Your task to perform on an android device: turn on location history Image 0: 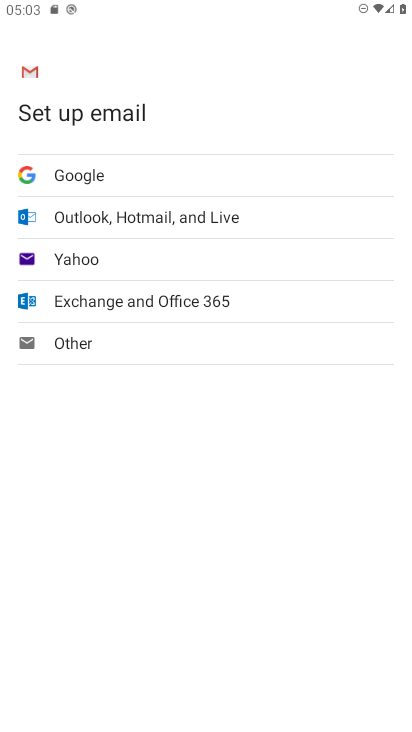
Step 0: press home button
Your task to perform on an android device: turn on location history Image 1: 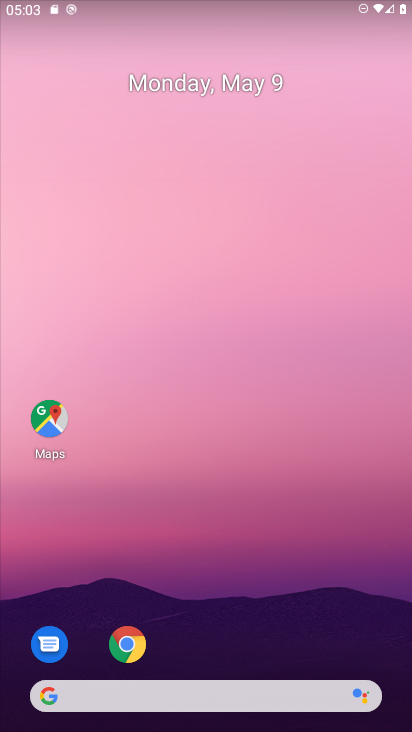
Step 1: drag from (226, 600) to (239, 42)
Your task to perform on an android device: turn on location history Image 2: 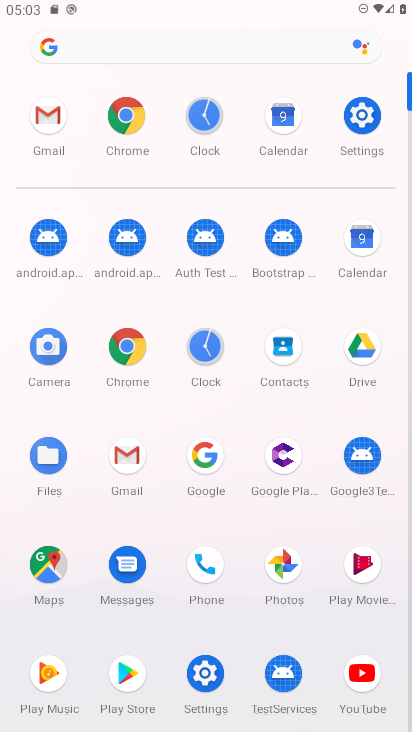
Step 2: click (207, 674)
Your task to perform on an android device: turn on location history Image 3: 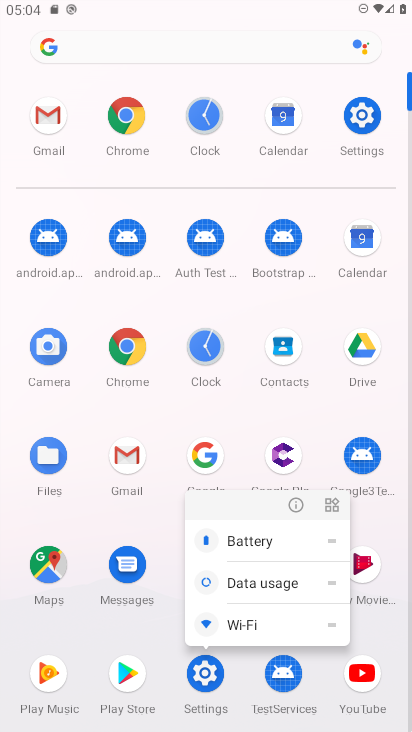
Step 3: click (207, 674)
Your task to perform on an android device: turn on location history Image 4: 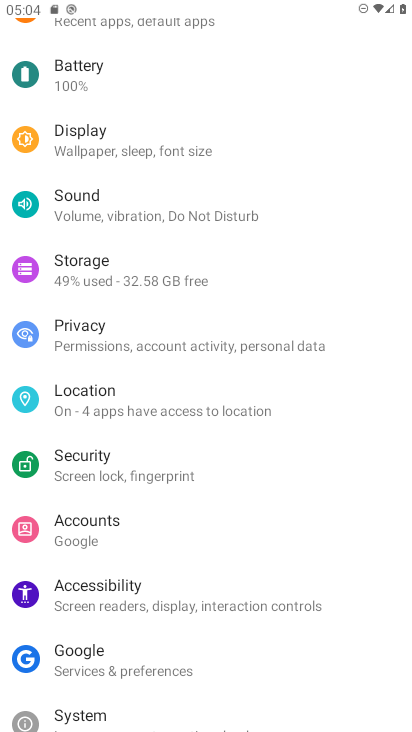
Step 4: click (114, 392)
Your task to perform on an android device: turn on location history Image 5: 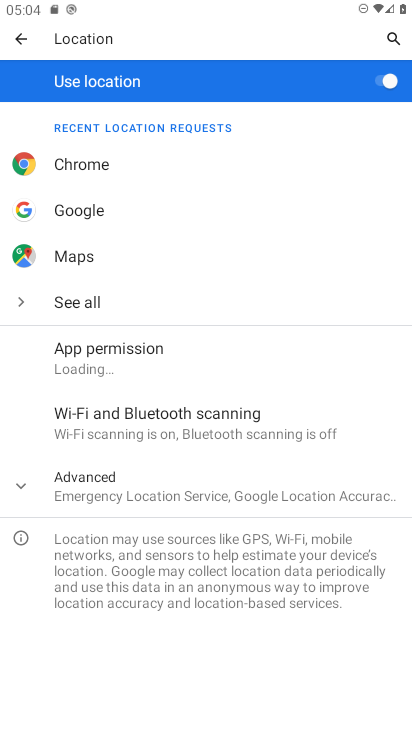
Step 5: drag from (82, 383) to (57, 442)
Your task to perform on an android device: turn on location history Image 6: 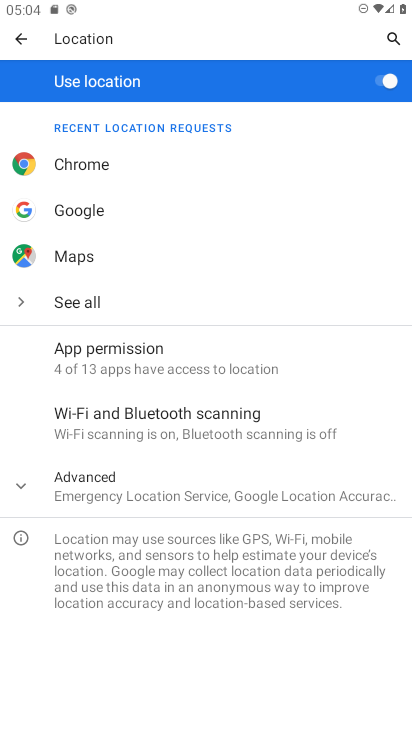
Step 6: click (146, 493)
Your task to perform on an android device: turn on location history Image 7: 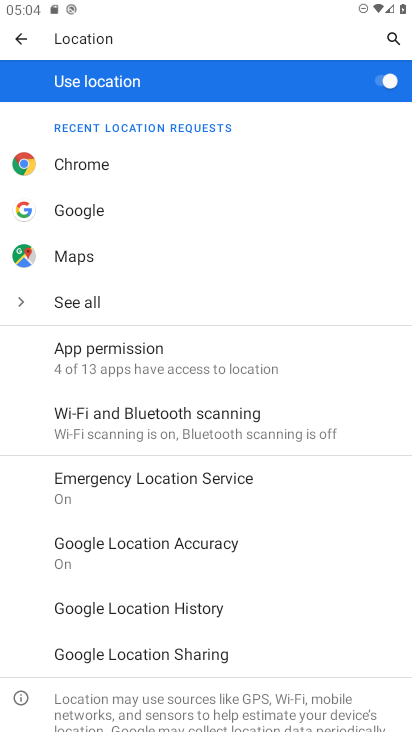
Step 7: click (149, 604)
Your task to perform on an android device: turn on location history Image 8: 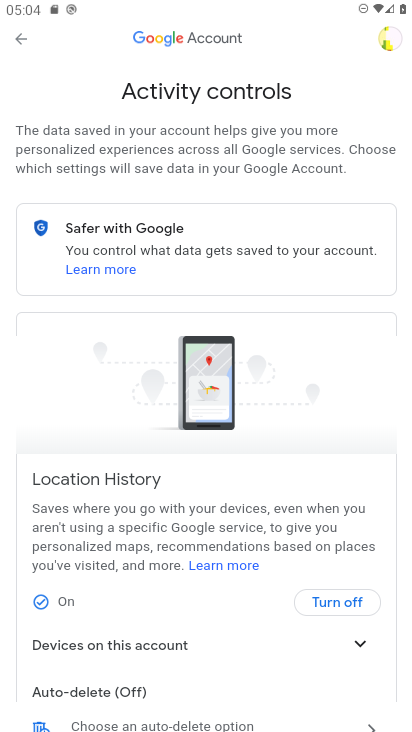
Step 8: task complete